Your task to perform on an android device: check battery use Image 0: 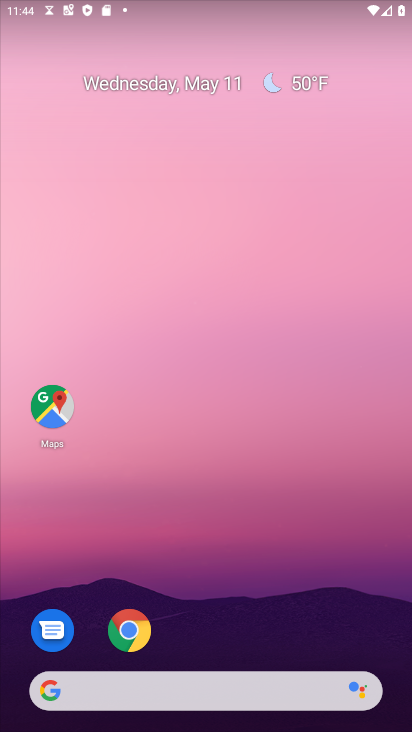
Step 0: drag from (203, 727) to (197, 79)
Your task to perform on an android device: check battery use Image 1: 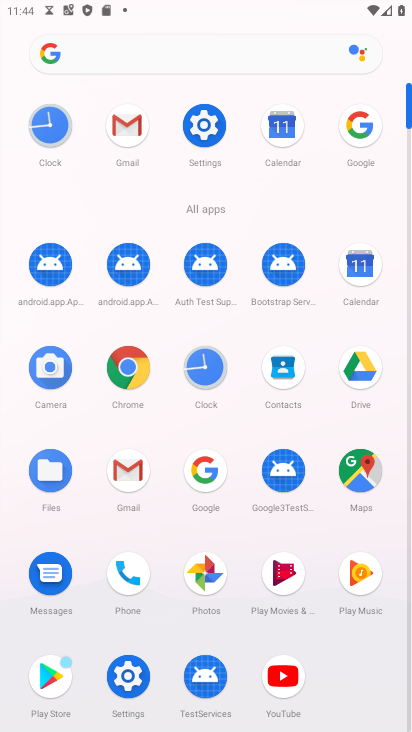
Step 1: click (132, 671)
Your task to perform on an android device: check battery use Image 2: 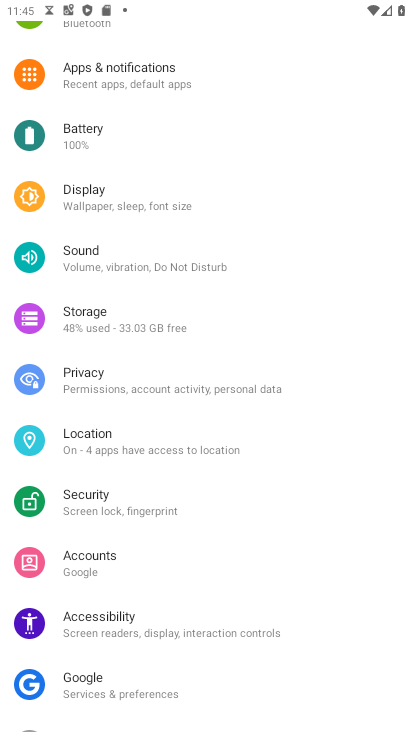
Step 2: click (81, 127)
Your task to perform on an android device: check battery use Image 3: 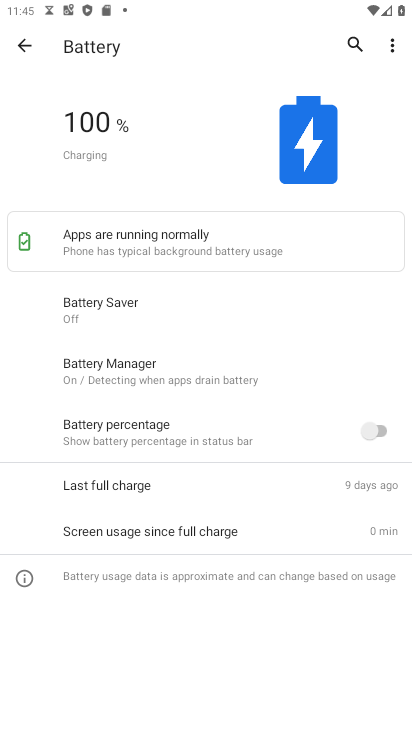
Step 3: click (390, 46)
Your task to perform on an android device: check battery use Image 4: 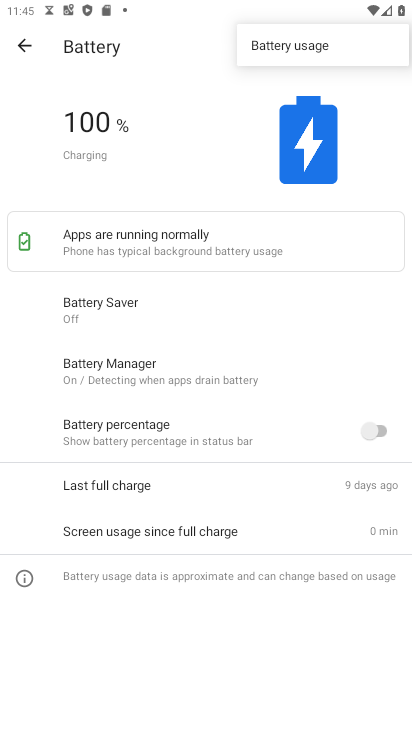
Step 4: click (309, 43)
Your task to perform on an android device: check battery use Image 5: 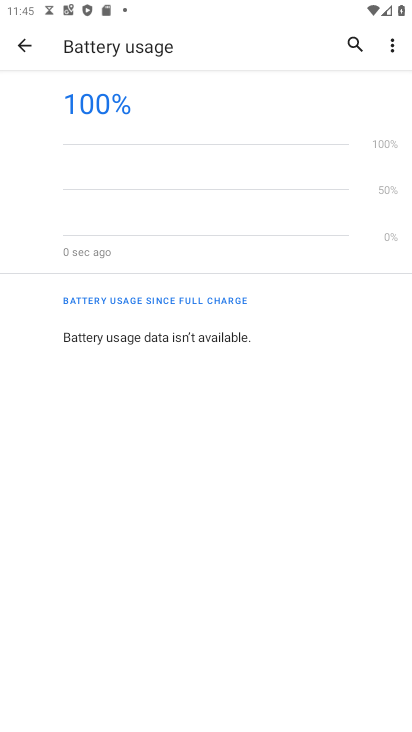
Step 5: task complete